Your task to perform on an android device: turn on wifi Image 0: 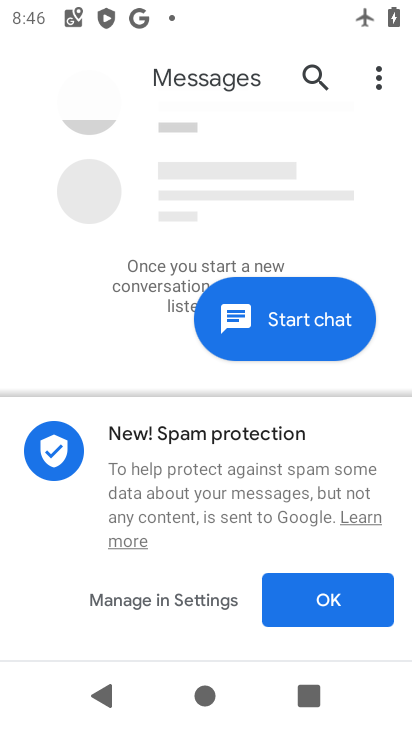
Step 0: press home button
Your task to perform on an android device: turn on wifi Image 1: 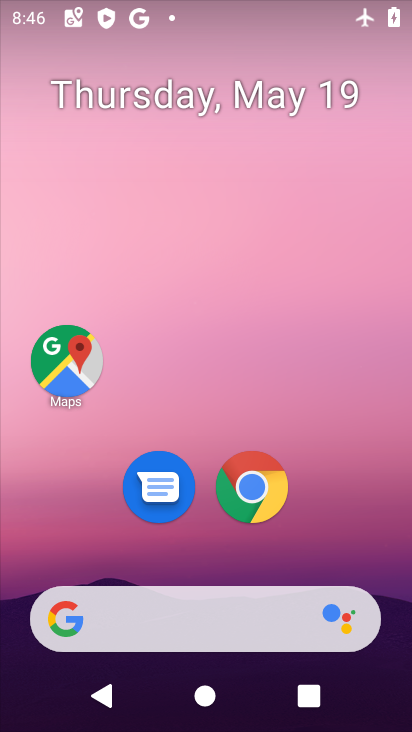
Step 1: drag from (189, 558) to (264, 29)
Your task to perform on an android device: turn on wifi Image 2: 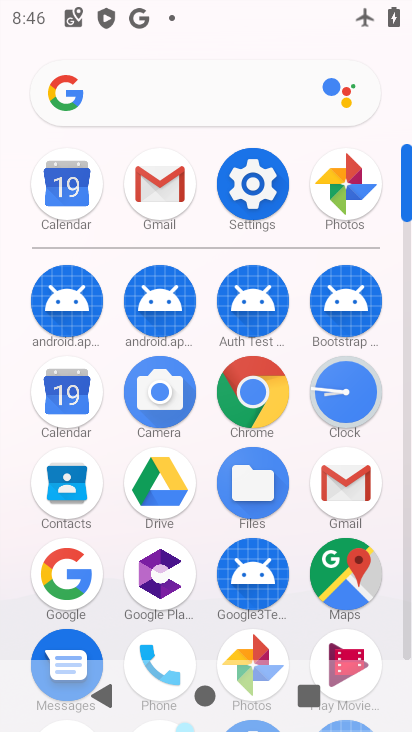
Step 2: click (268, 171)
Your task to perform on an android device: turn on wifi Image 3: 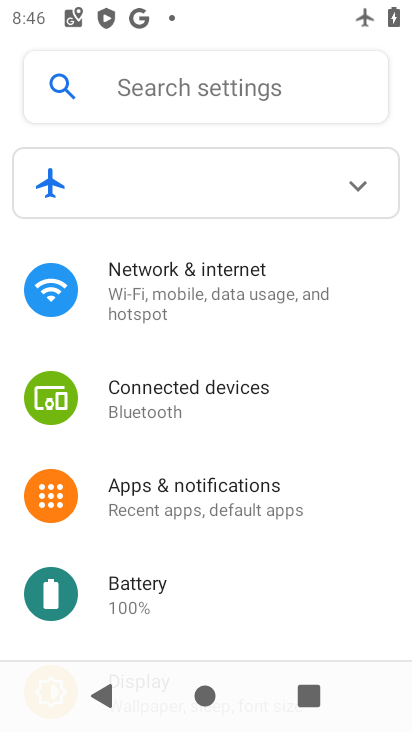
Step 3: click (200, 318)
Your task to perform on an android device: turn on wifi Image 4: 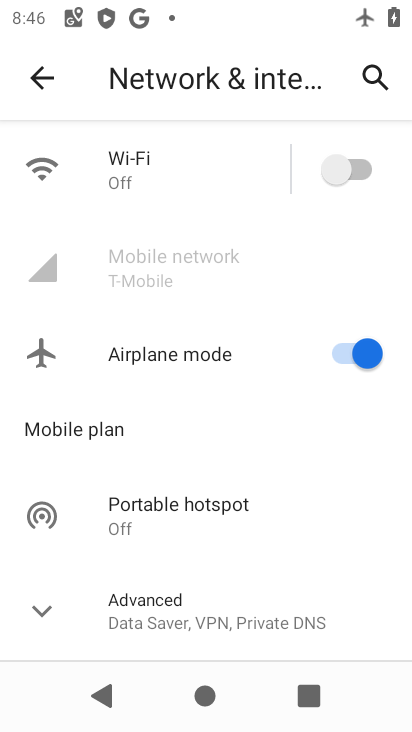
Step 4: click (331, 173)
Your task to perform on an android device: turn on wifi Image 5: 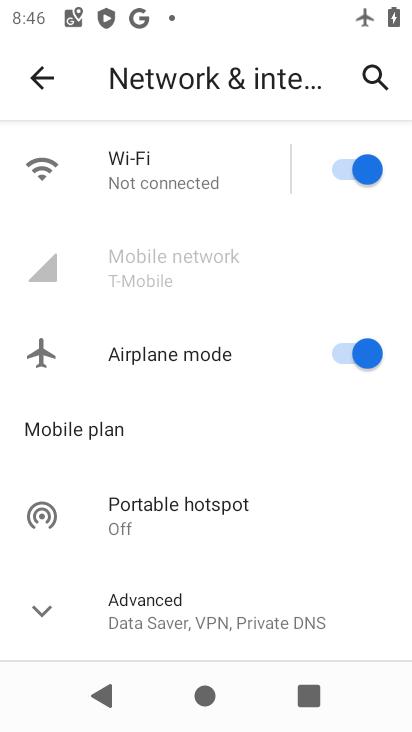
Step 5: task complete